Your task to perform on an android device: Search for sushi restaurants on Maps Image 0: 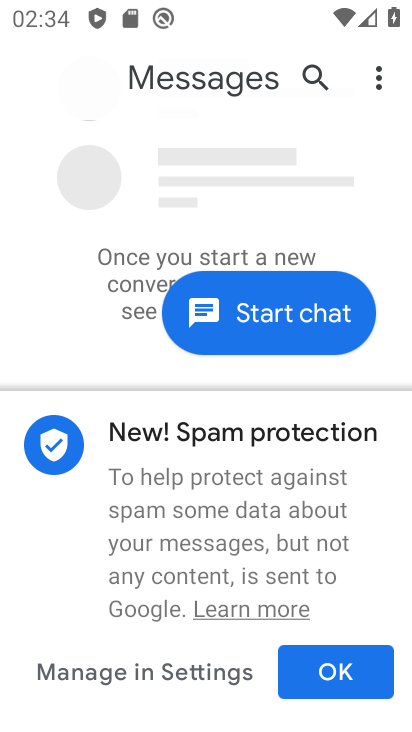
Step 0: press home button
Your task to perform on an android device: Search for sushi restaurants on Maps Image 1: 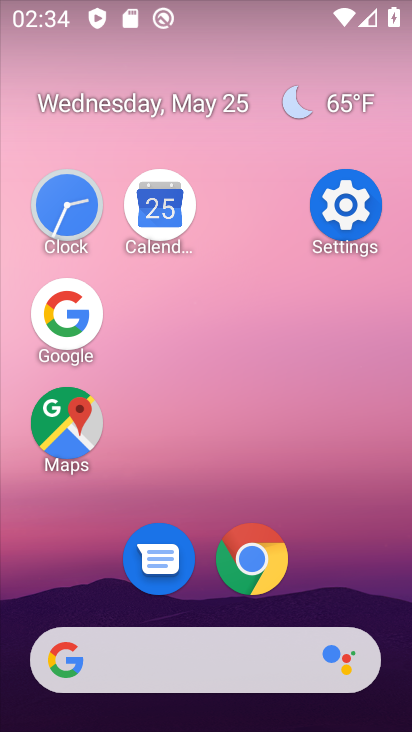
Step 1: click (87, 438)
Your task to perform on an android device: Search for sushi restaurants on Maps Image 2: 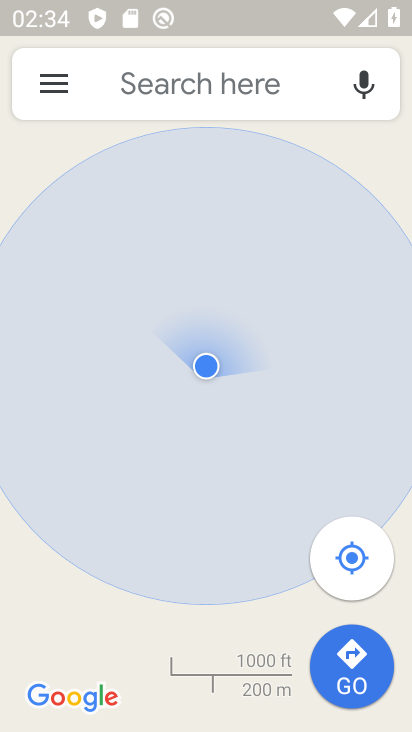
Step 2: click (185, 84)
Your task to perform on an android device: Search for sushi restaurants on Maps Image 3: 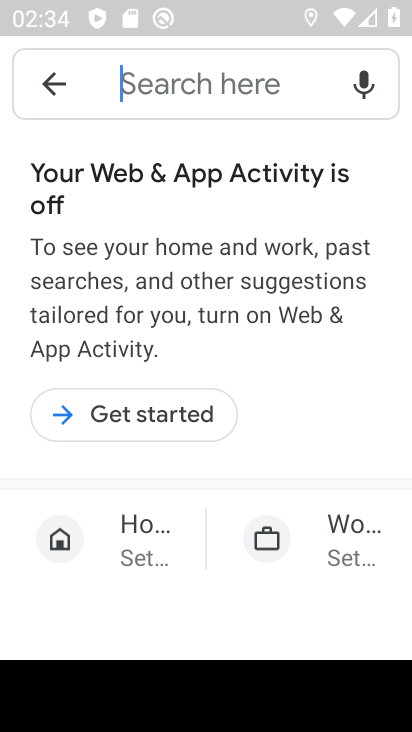
Step 3: click (44, 107)
Your task to perform on an android device: Search for sushi restaurants on Maps Image 4: 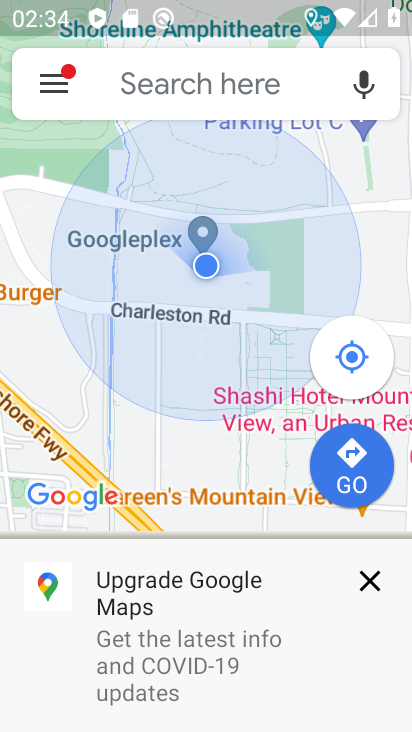
Step 4: click (190, 76)
Your task to perform on an android device: Search for sushi restaurants on Maps Image 5: 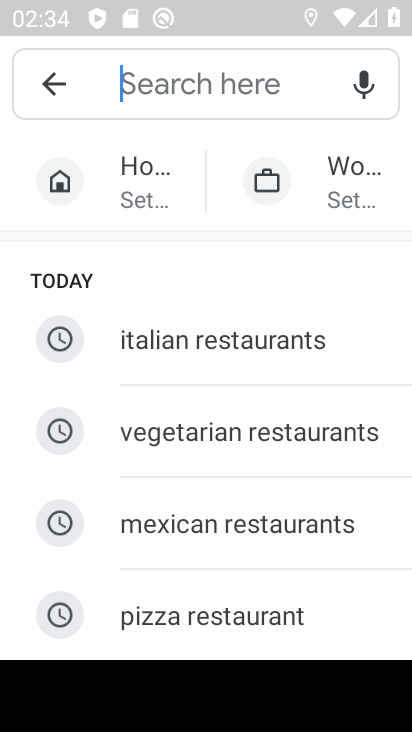
Step 5: drag from (300, 549) to (307, 225)
Your task to perform on an android device: Search for sushi restaurants on Maps Image 6: 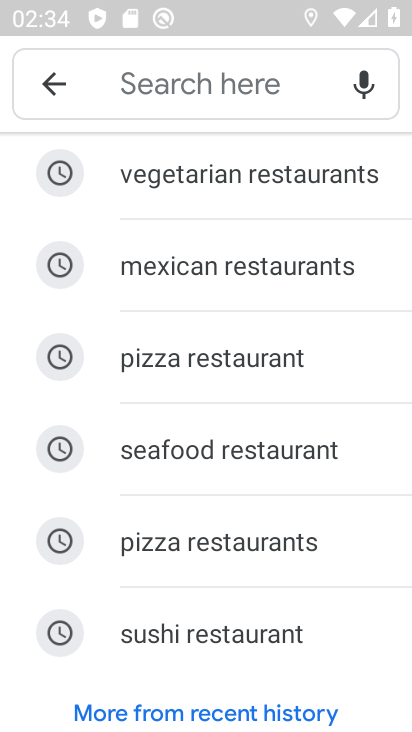
Step 6: click (227, 655)
Your task to perform on an android device: Search for sushi restaurants on Maps Image 7: 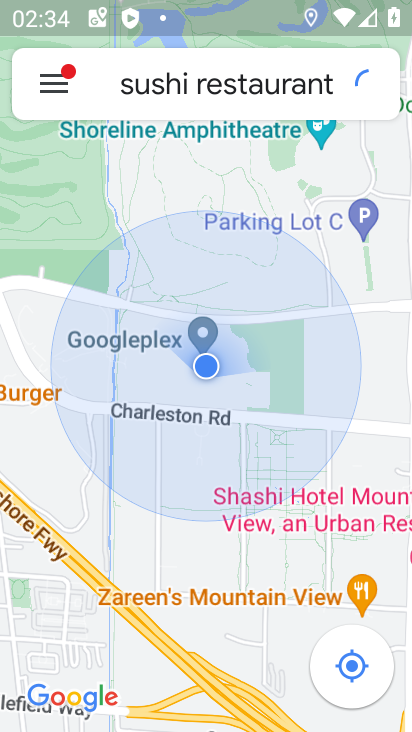
Step 7: task complete